Your task to perform on an android device: What's the weather going to be this weekend? Image 0: 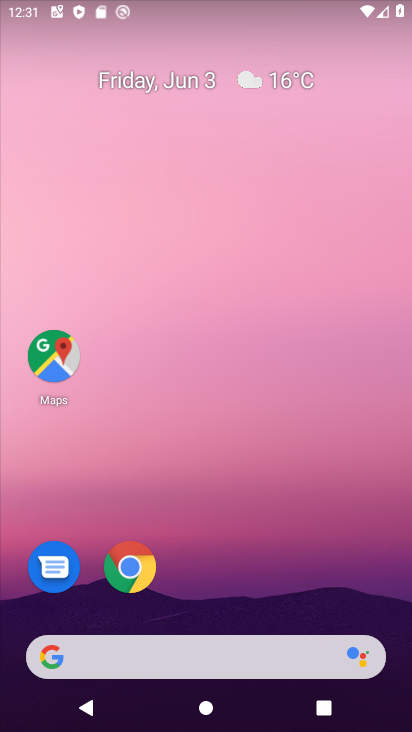
Step 0: click (407, 399)
Your task to perform on an android device: What's the weather going to be this weekend? Image 1: 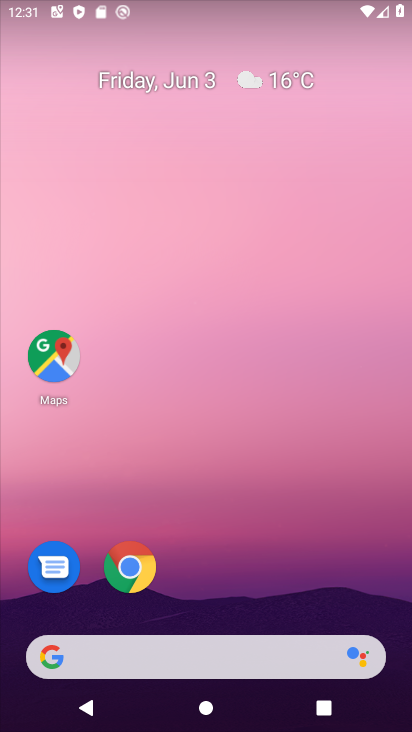
Step 1: drag from (332, 359) to (312, 512)
Your task to perform on an android device: What's the weather going to be this weekend? Image 2: 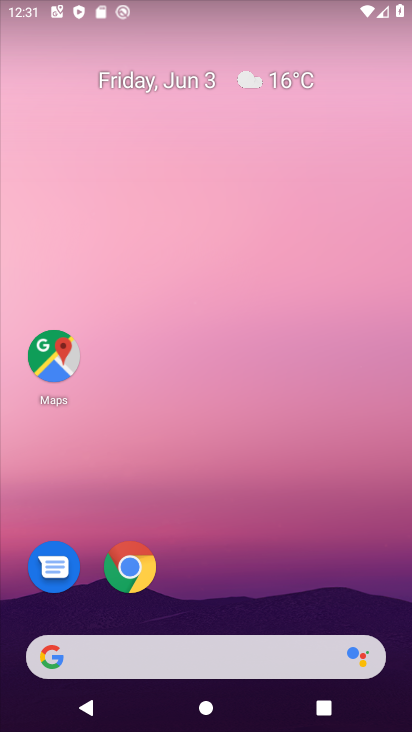
Step 2: click (294, 81)
Your task to perform on an android device: What's the weather going to be this weekend? Image 3: 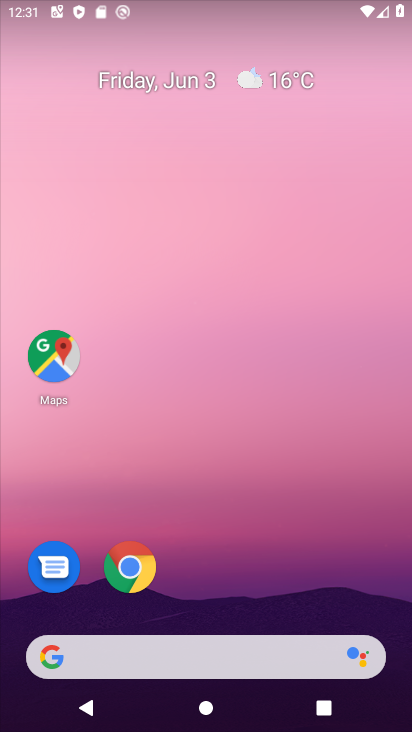
Step 3: click (293, 81)
Your task to perform on an android device: What's the weather going to be this weekend? Image 4: 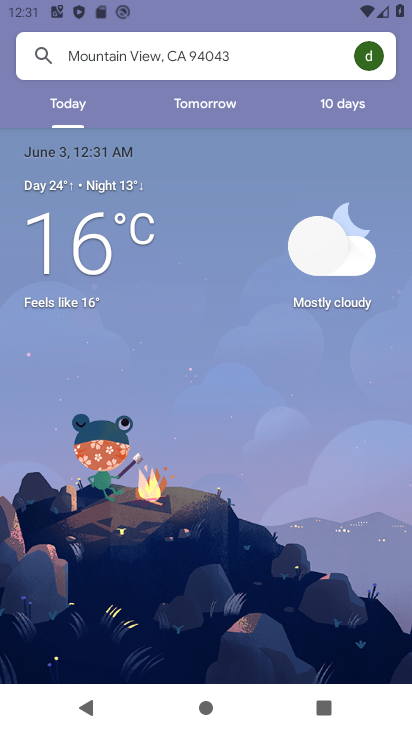
Step 4: click (328, 112)
Your task to perform on an android device: What's the weather going to be this weekend? Image 5: 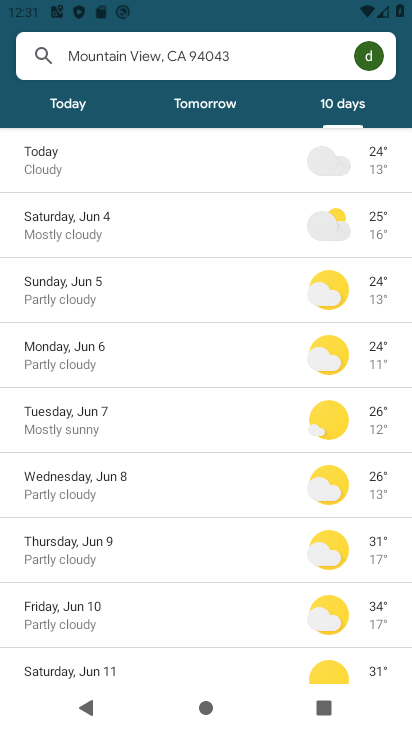
Step 5: task complete